Your task to perform on an android device: Is it going to rain tomorrow? Image 0: 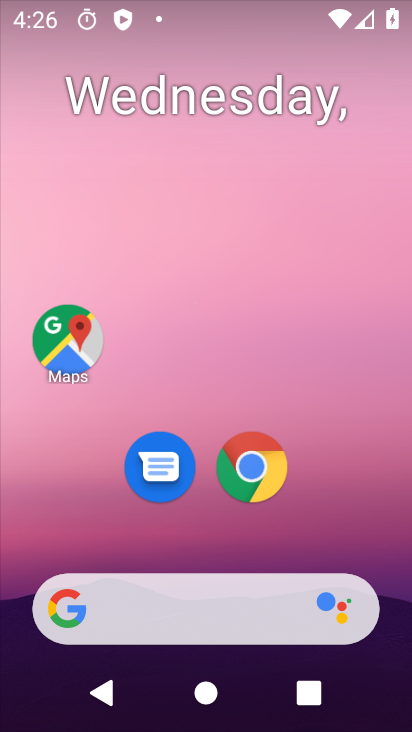
Step 0: drag from (391, 664) to (352, 188)
Your task to perform on an android device: Is it going to rain tomorrow? Image 1: 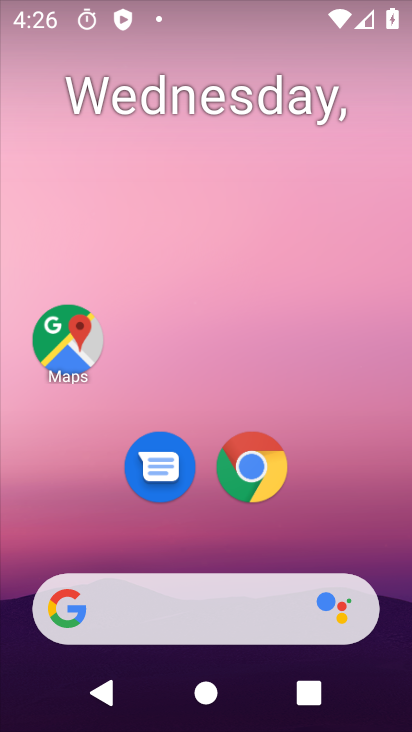
Step 1: drag from (399, 667) to (319, 10)
Your task to perform on an android device: Is it going to rain tomorrow? Image 2: 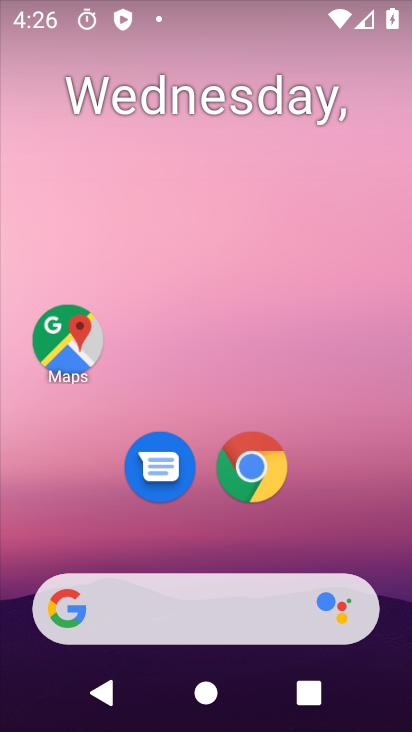
Step 2: drag from (382, 697) to (308, 153)
Your task to perform on an android device: Is it going to rain tomorrow? Image 3: 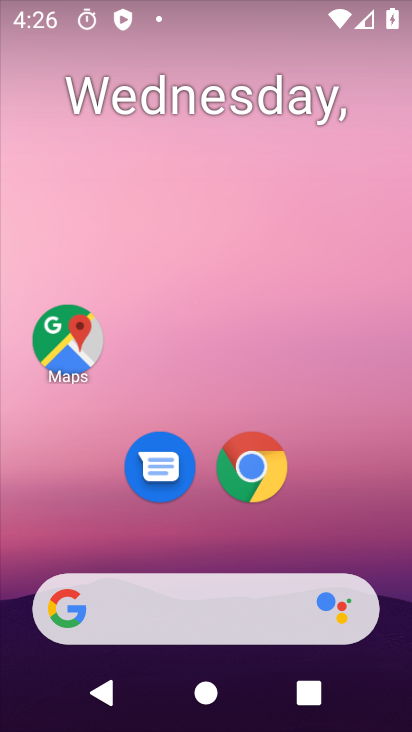
Step 3: drag from (392, 708) to (313, 109)
Your task to perform on an android device: Is it going to rain tomorrow? Image 4: 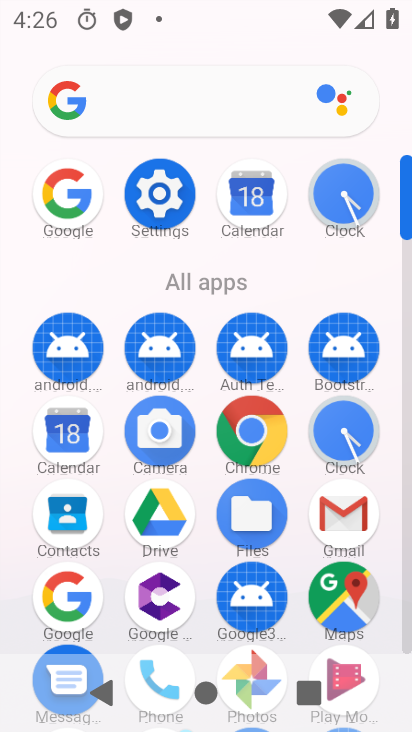
Step 4: click (36, 590)
Your task to perform on an android device: Is it going to rain tomorrow? Image 5: 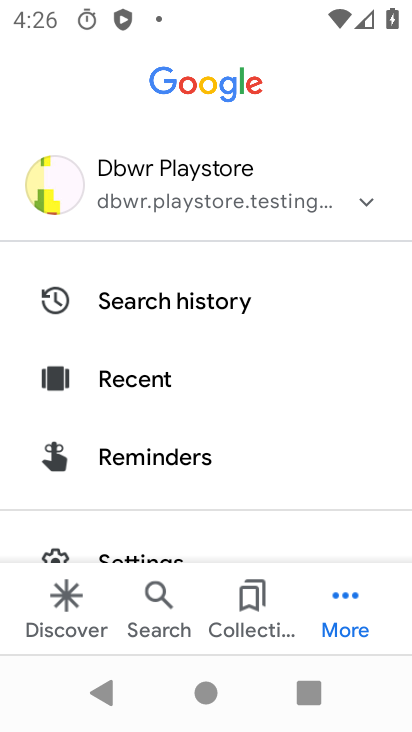
Step 5: click (70, 617)
Your task to perform on an android device: Is it going to rain tomorrow? Image 6: 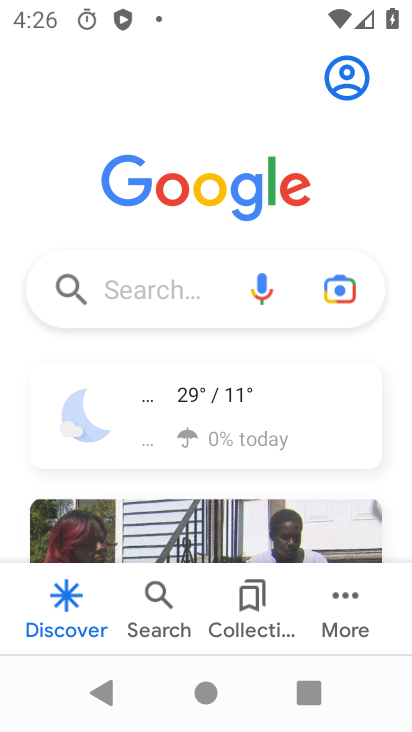
Step 6: click (187, 391)
Your task to perform on an android device: Is it going to rain tomorrow? Image 7: 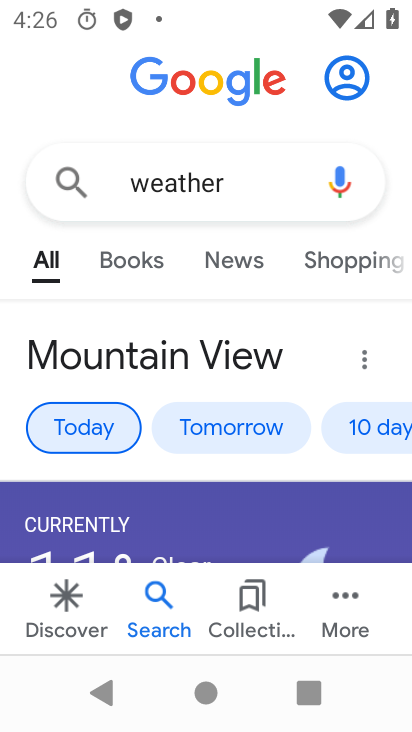
Step 7: click (200, 421)
Your task to perform on an android device: Is it going to rain tomorrow? Image 8: 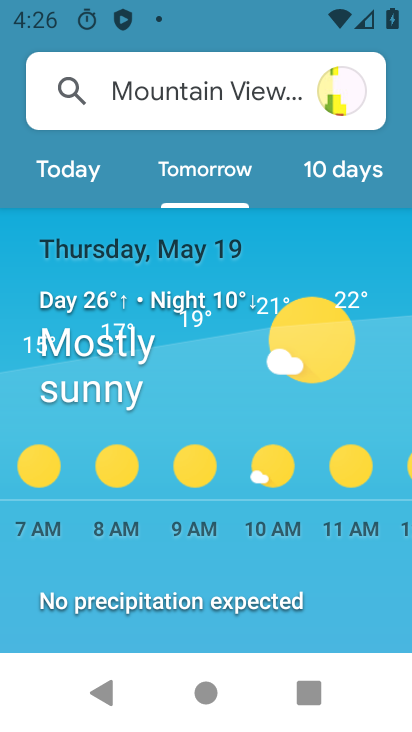
Step 8: task complete